Your task to perform on an android device: Go to sound settings Image 0: 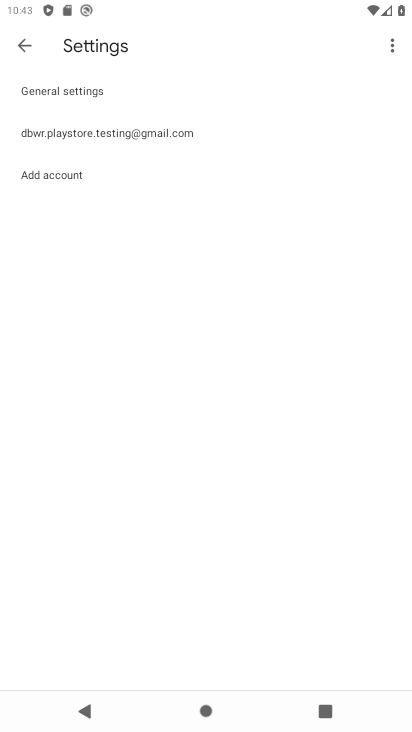
Step 0: press home button
Your task to perform on an android device: Go to sound settings Image 1: 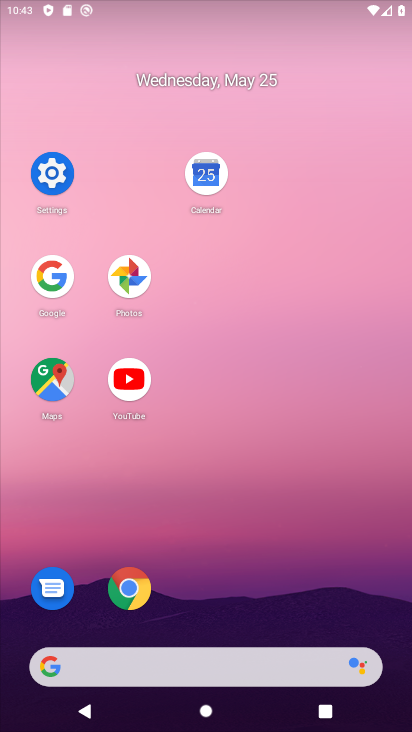
Step 1: click (52, 173)
Your task to perform on an android device: Go to sound settings Image 2: 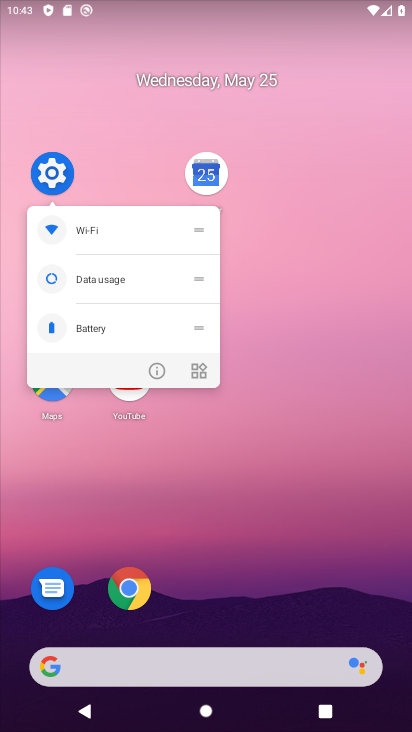
Step 2: click (53, 165)
Your task to perform on an android device: Go to sound settings Image 3: 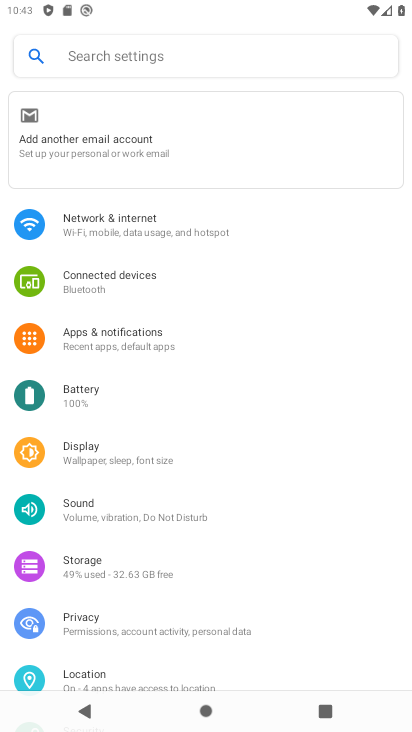
Step 3: click (143, 530)
Your task to perform on an android device: Go to sound settings Image 4: 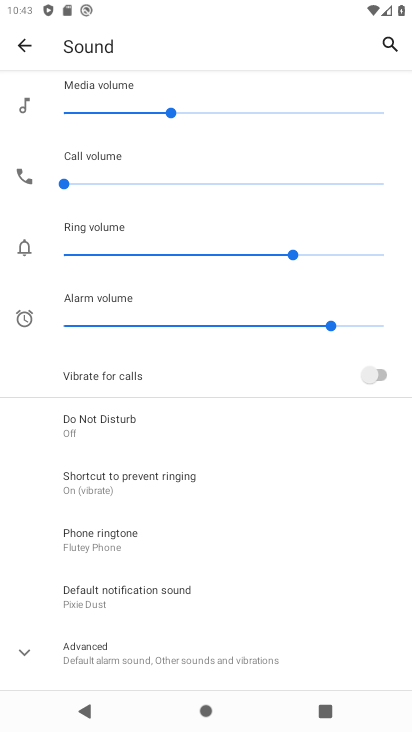
Step 4: task complete